Your task to perform on an android device: Open the map Image 0: 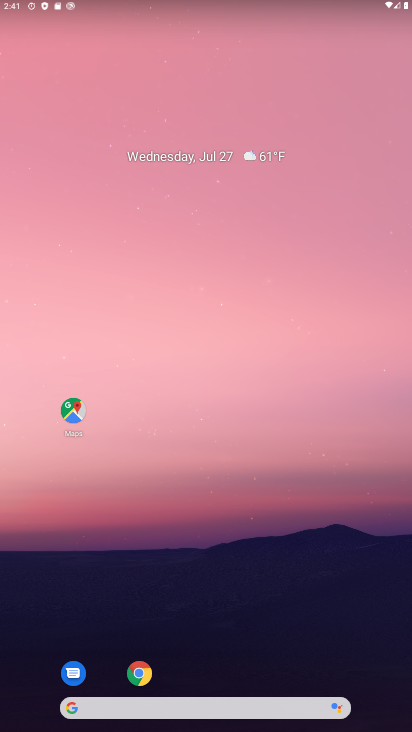
Step 0: click (81, 402)
Your task to perform on an android device: Open the map Image 1: 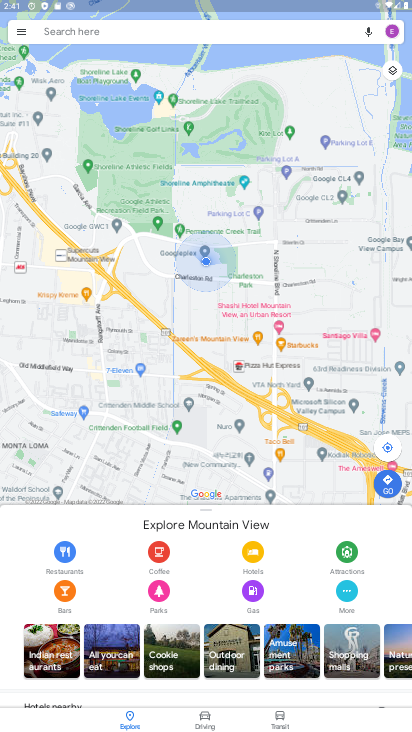
Step 1: task complete